Your task to perform on an android device: Open internet settings Image 0: 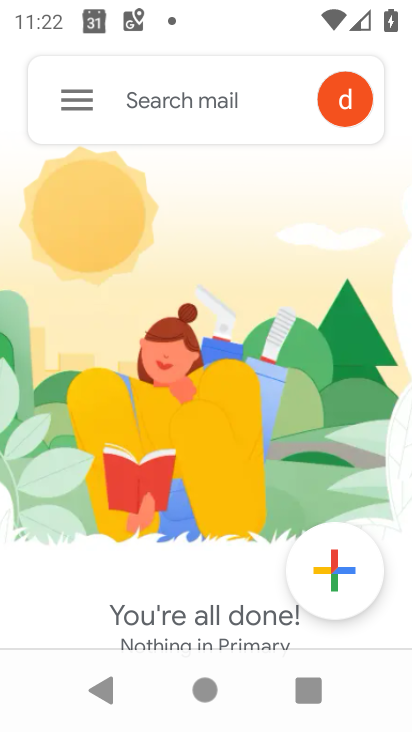
Step 0: press home button
Your task to perform on an android device: Open internet settings Image 1: 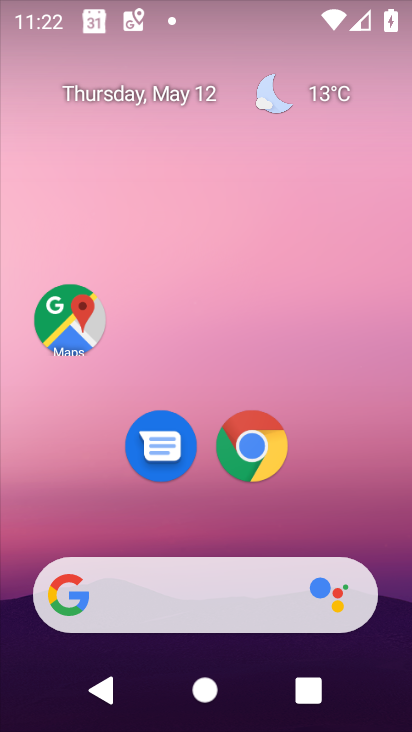
Step 1: drag from (288, 416) to (263, 6)
Your task to perform on an android device: Open internet settings Image 2: 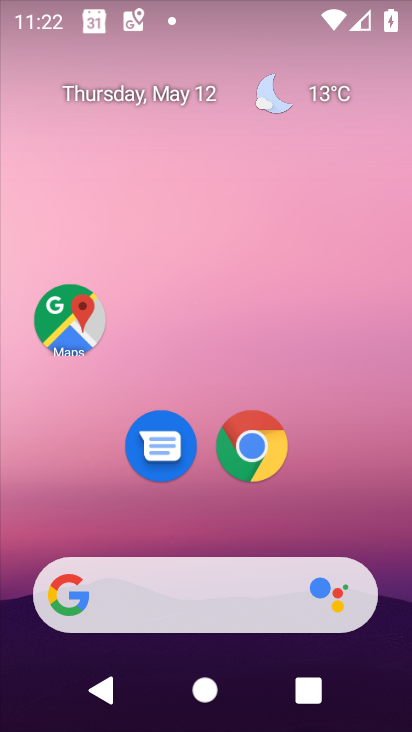
Step 2: drag from (320, 532) to (344, 0)
Your task to perform on an android device: Open internet settings Image 3: 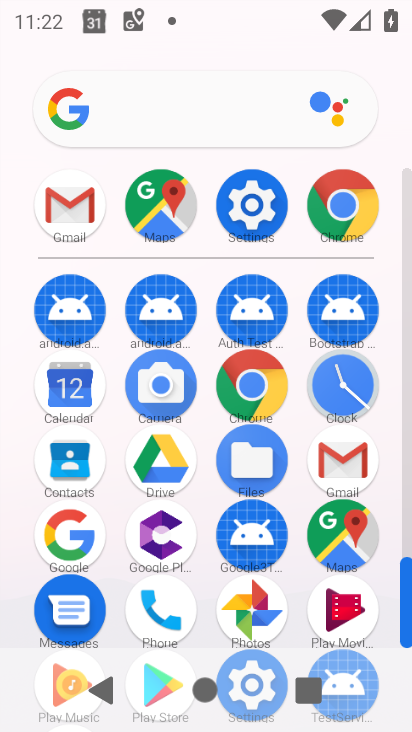
Step 3: click (251, 198)
Your task to perform on an android device: Open internet settings Image 4: 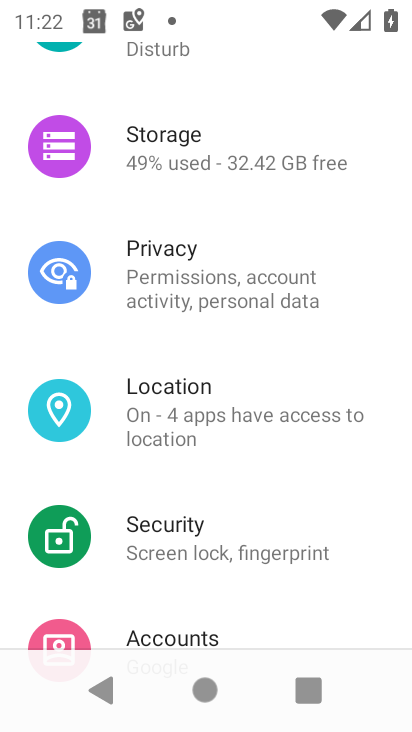
Step 4: drag from (272, 181) to (284, 696)
Your task to perform on an android device: Open internet settings Image 5: 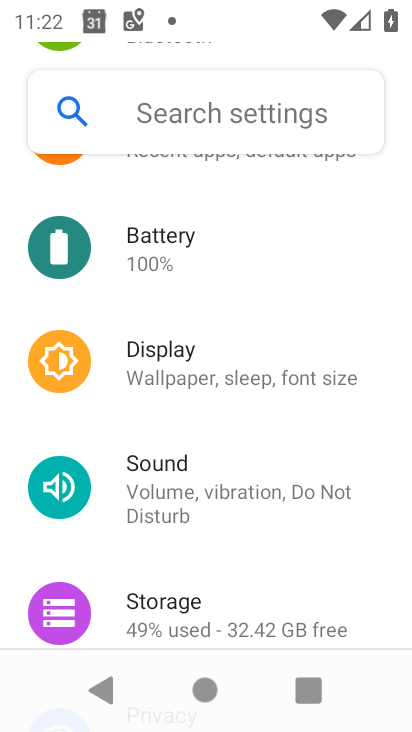
Step 5: drag from (252, 276) to (248, 713)
Your task to perform on an android device: Open internet settings Image 6: 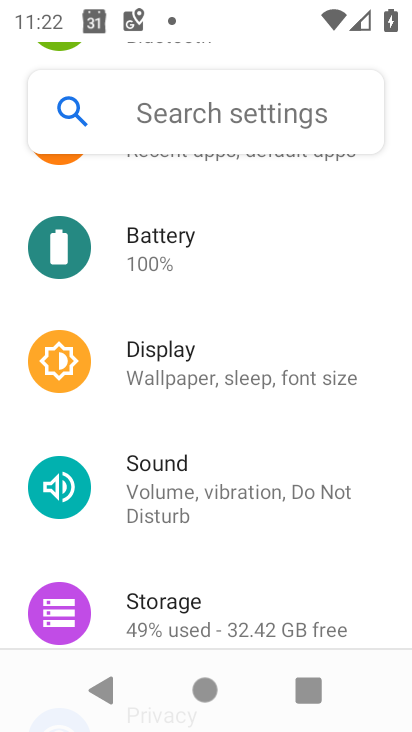
Step 6: drag from (243, 229) to (289, 703)
Your task to perform on an android device: Open internet settings Image 7: 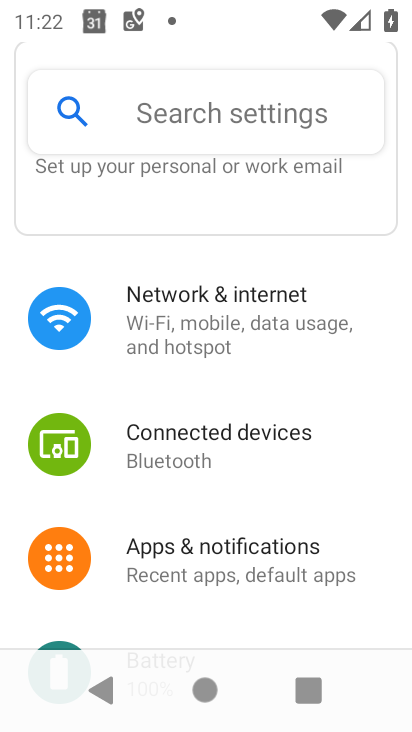
Step 7: click (236, 346)
Your task to perform on an android device: Open internet settings Image 8: 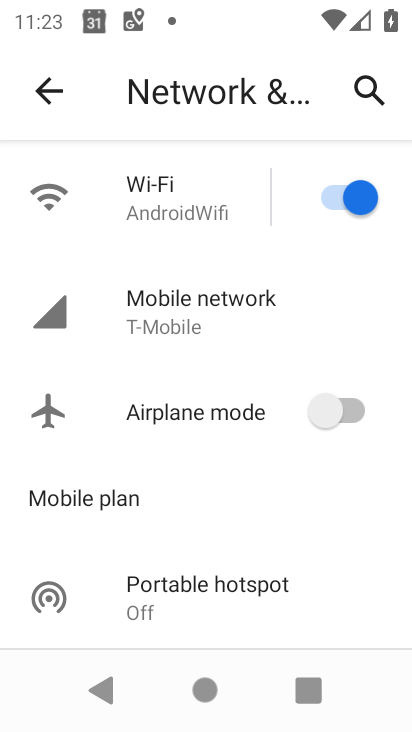
Step 8: task complete